Your task to perform on an android device: empty trash in google photos Image 0: 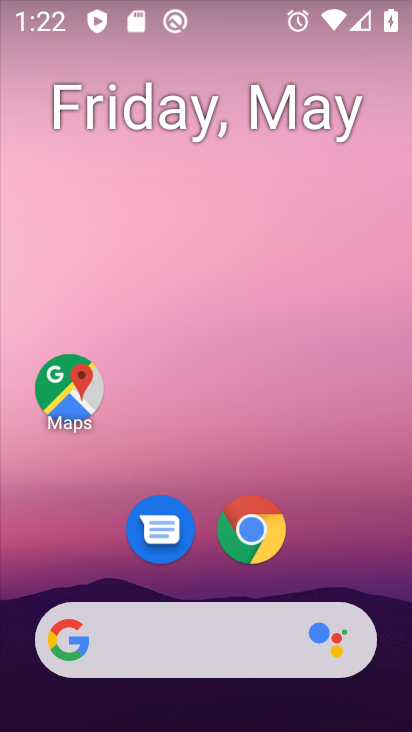
Step 0: click (404, 291)
Your task to perform on an android device: empty trash in google photos Image 1: 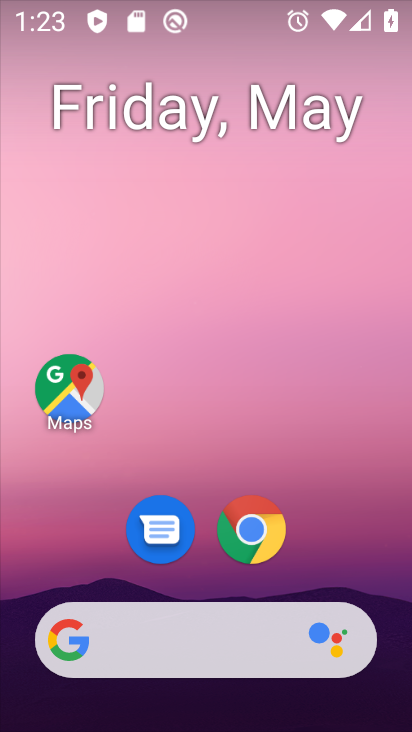
Step 1: drag from (393, 654) to (411, 264)
Your task to perform on an android device: empty trash in google photos Image 2: 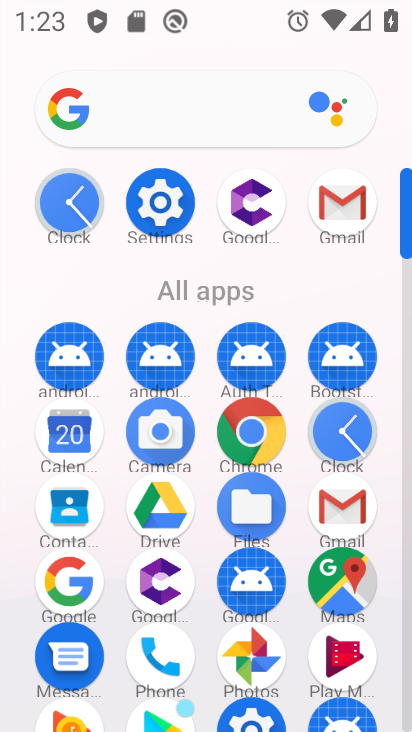
Step 2: click (240, 645)
Your task to perform on an android device: empty trash in google photos Image 3: 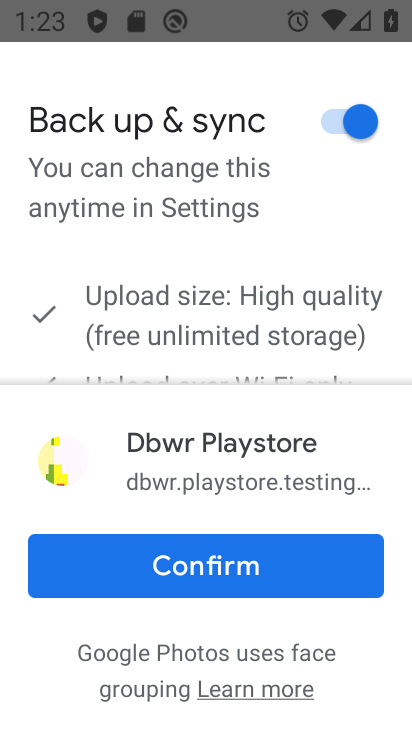
Step 3: click (250, 561)
Your task to perform on an android device: empty trash in google photos Image 4: 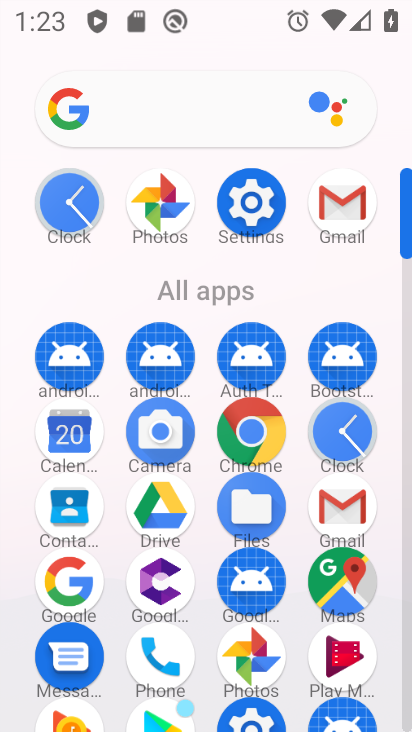
Step 4: click (250, 663)
Your task to perform on an android device: empty trash in google photos Image 5: 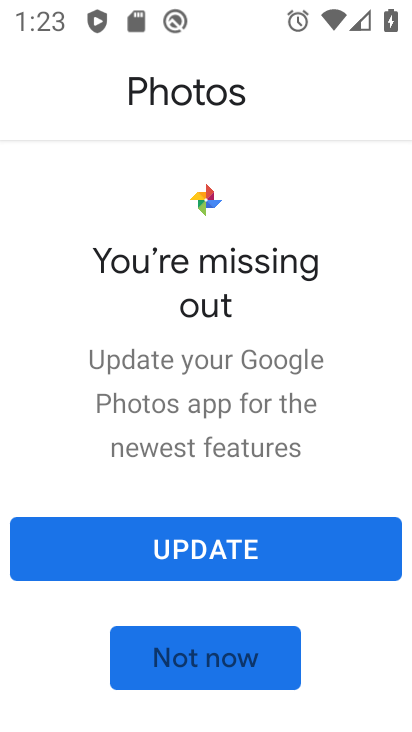
Step 5: click (196, 558)
Your task to perform on an android device: empty trash in google photos Image 6: 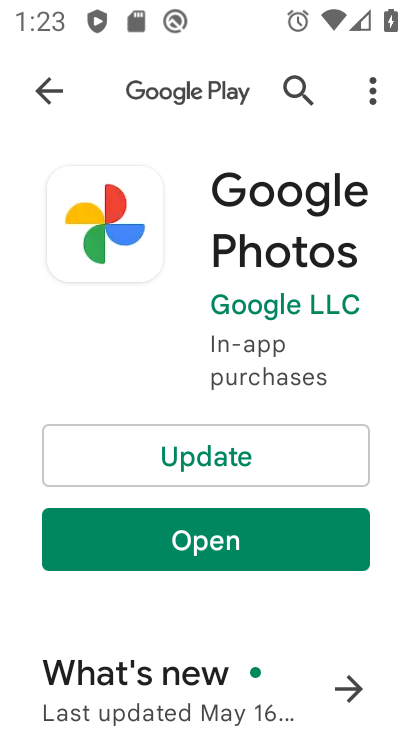
Step 6: click (240, 461)
Your task to perform on an android device: empty trash in google photos Image 7: 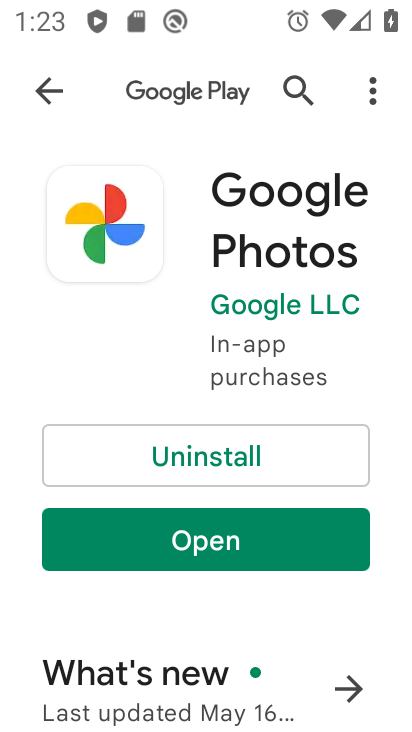
Step 7: click (225, 536)
Your task to perform on an android device: empty trash in google photos Image 8: 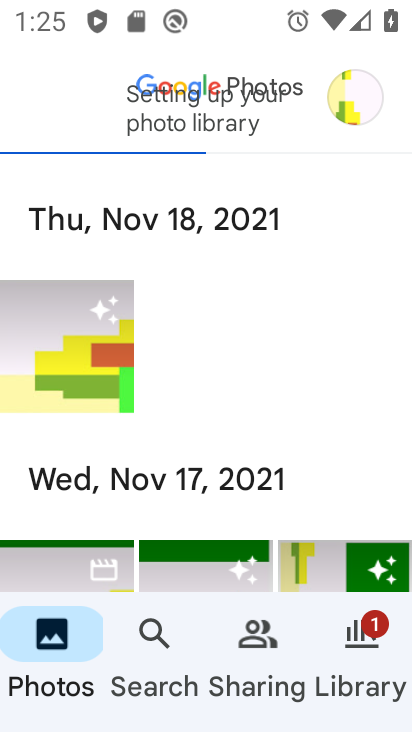
Step 8: task complete